Your task to perform on an android device: turn notification dots on Image 0: 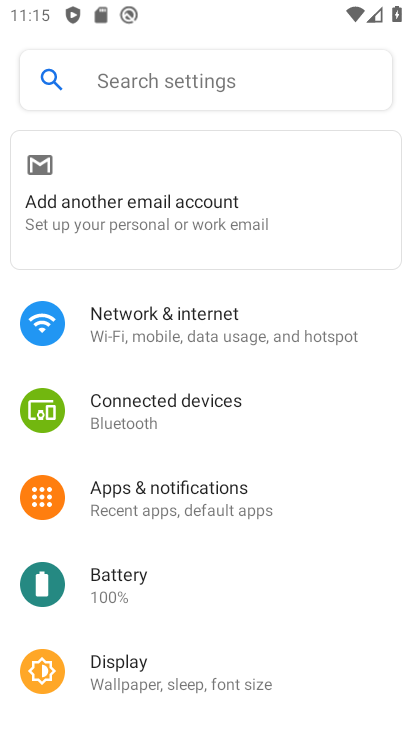
Step 0: drag from (178, 567) to (219, 297)
Your task to perform on an android device: turn notification dots on Image 1: 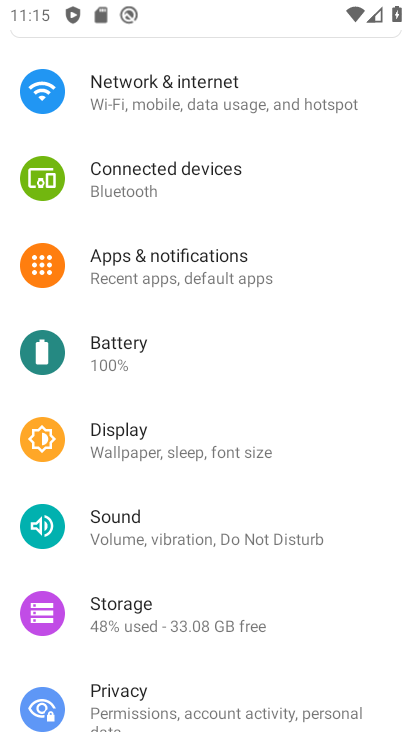
Step 1: click (179, 274)
Your task to perform on an android device: turn notification dots on Image 2: 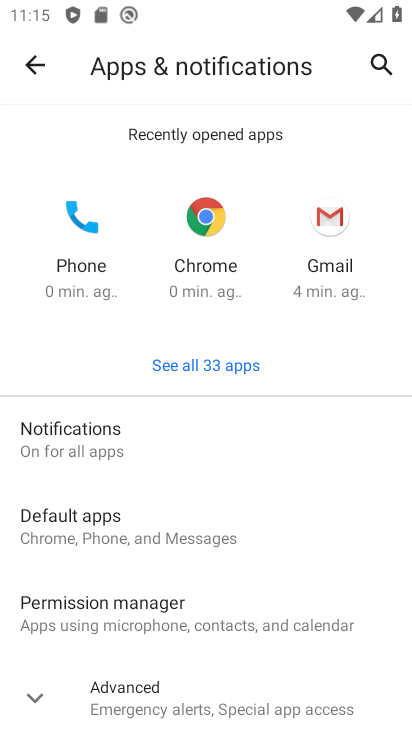
Step 2: drag from (74, 428) to (153, 276)
Your task to perform on an android device: turn notification dots on Image 3: 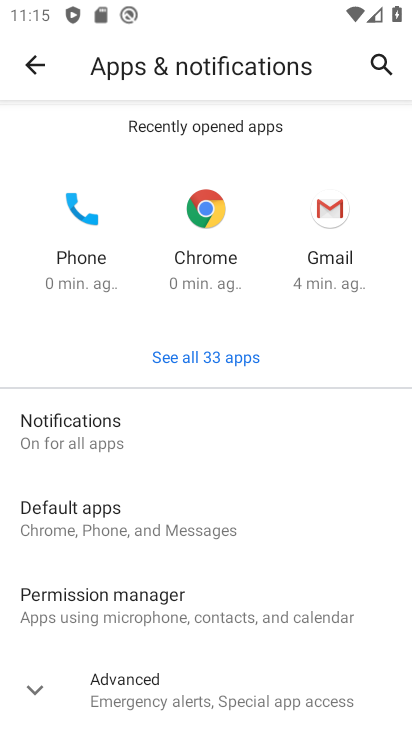
Step 3: click (183, 455)
Your task to perform on an android device: turn notification dots on Image 4: 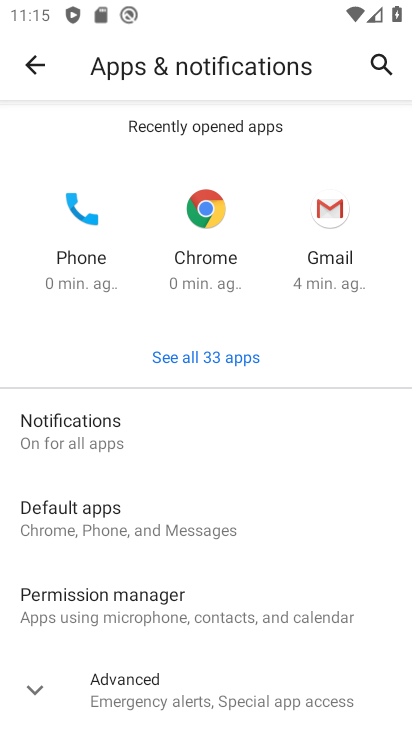
Step 4: click (183, 455)
Your task to perform on an android device: turn notification dots on Image 5: 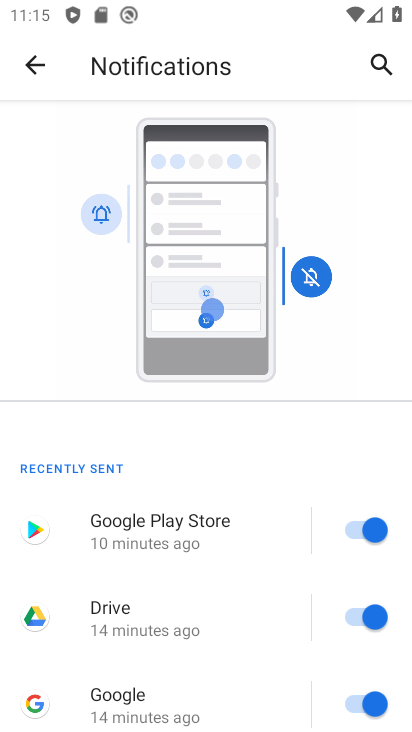
Step 5: drag from (182, 645) to (338, 206)
Your task to perform on an android device: turn notification dots on Image 6: 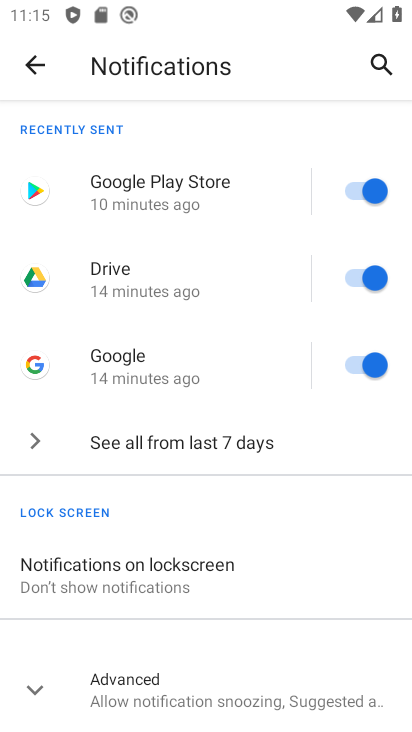
Step 6: click (199, 701)
Your task to perform on an android device: turn notification dots on Image 7: 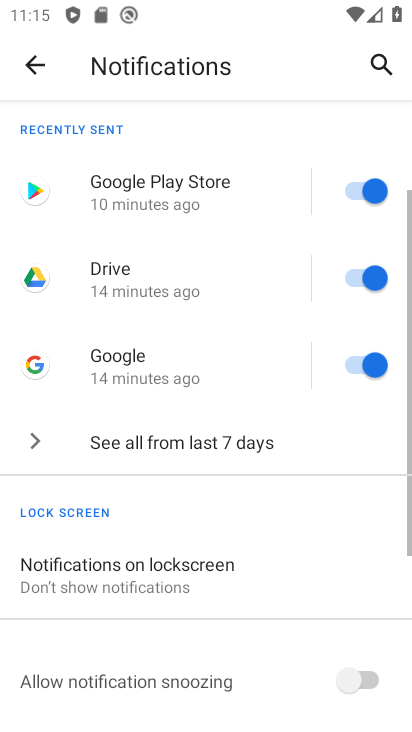
Step 7: task complete